Your task to perform on an android device: all mails in gmail Image 0: 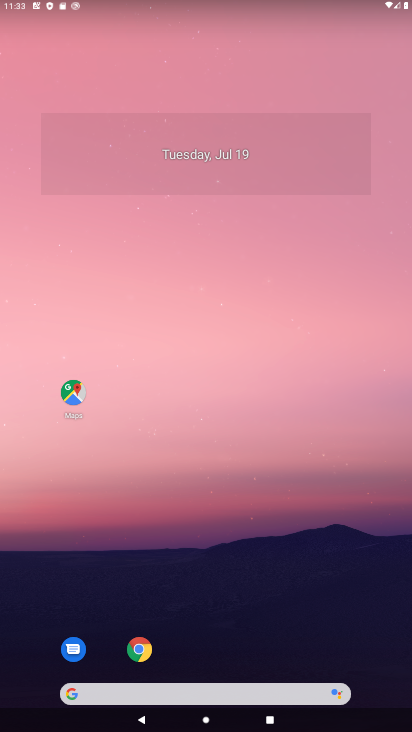
Step 0: drag from (245, 653) to (362, 158)
Your task to perform on an android device: all mails in gmail Image 1: 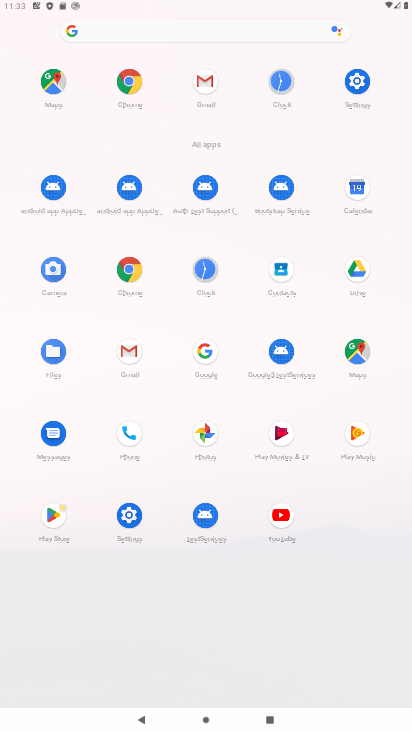
Step 1: click (129, 342)
Your task to perform on an android device: all mails in gmail Image 2: 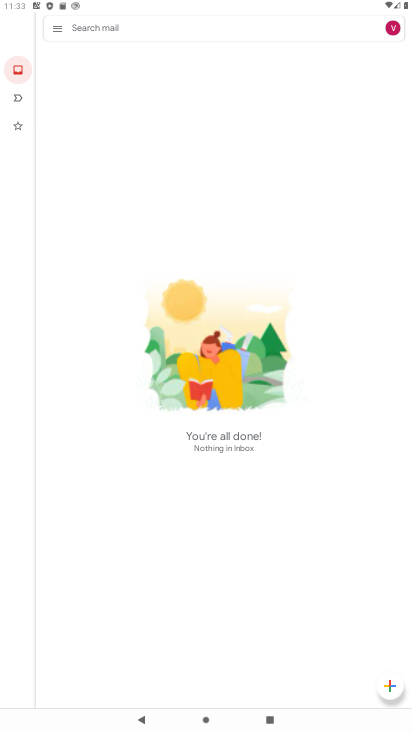
Step 2: task complete